Your task to perform on an android device: Open display settings Image 0: 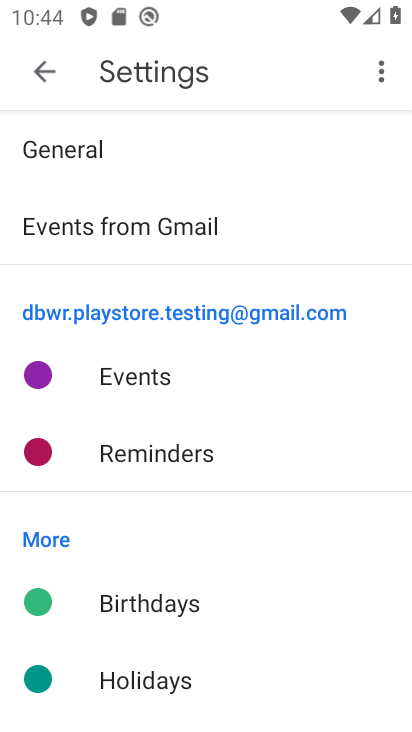
Step 0: drag from (295, 626) to (310, 327)
Your task to perform on an android device: Open display settings Image 1: 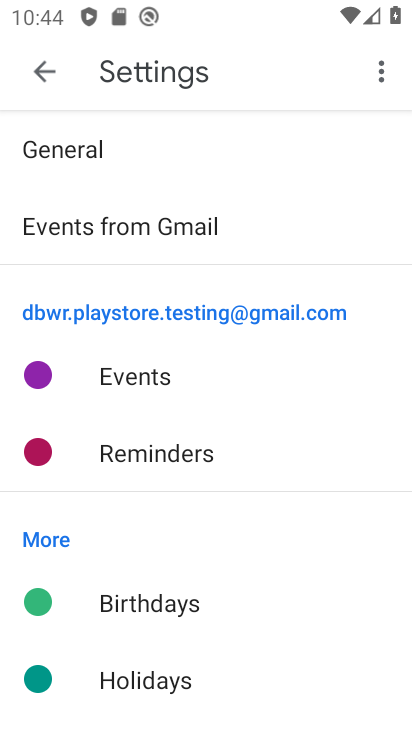
Step 1: press home button
Your task to perform on an android device: Open display settings Image 2: 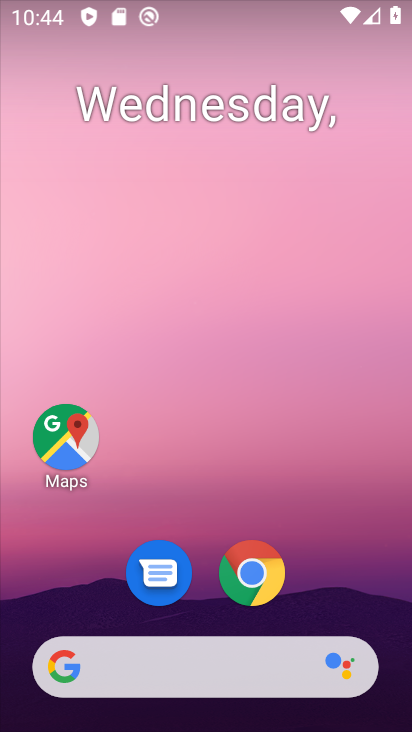
Step 2: click (320, 274)
Your task to perform on an android device: Open display settings Image 3: 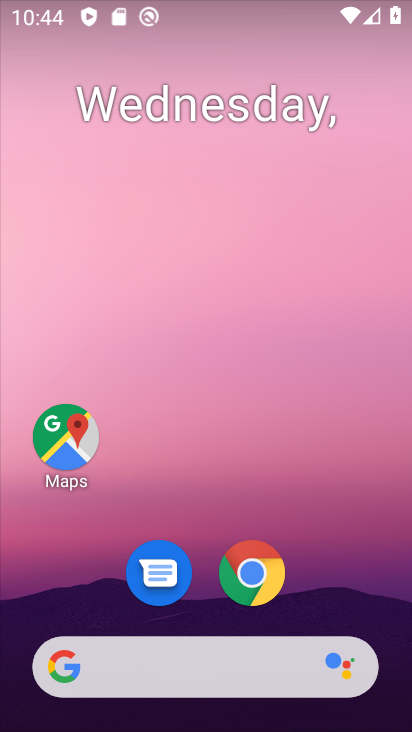
Step 3: drag from (360, 299) to (362, 204)
Your task to perform on an android device: Open display settings Image 4: 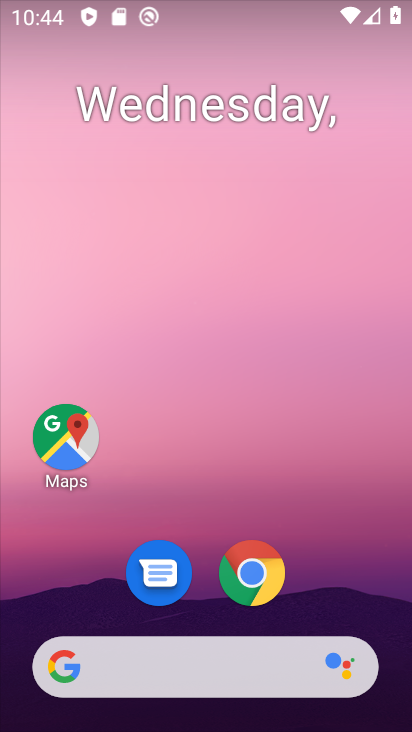
Step 4: click (349, 283)
Your task to perform on an android device: Open display settings Image 5: 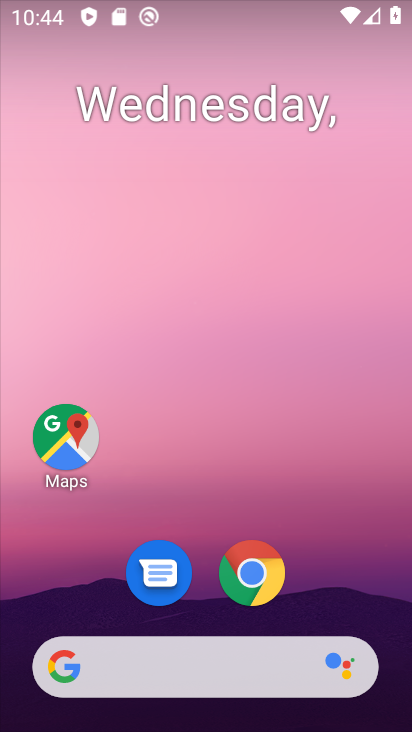
Step 5: drag from (347, 431) to (338, 269)
Your task to perform on an android device: Open display settings Image 6: 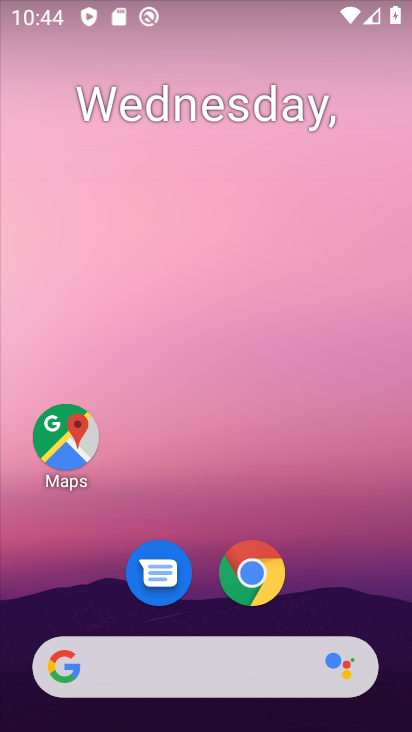
Step 6: click (359, 228)
Your task to perform on an android device: Open display settings Image 7: 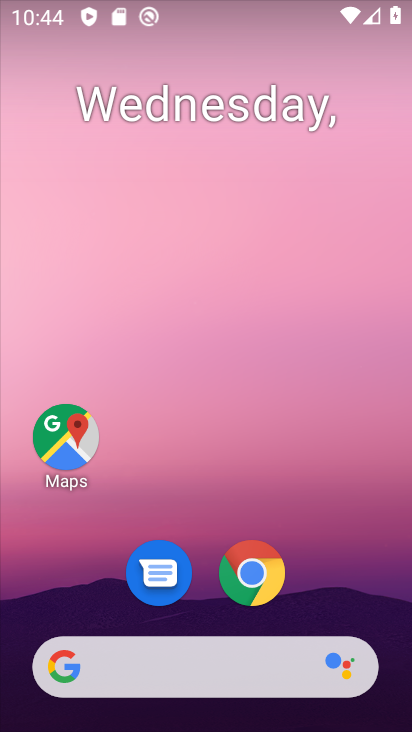
Step 7: drag from (349, 393) to (334, 264)
Your task to perform on an android device: Open display settings Image 8: 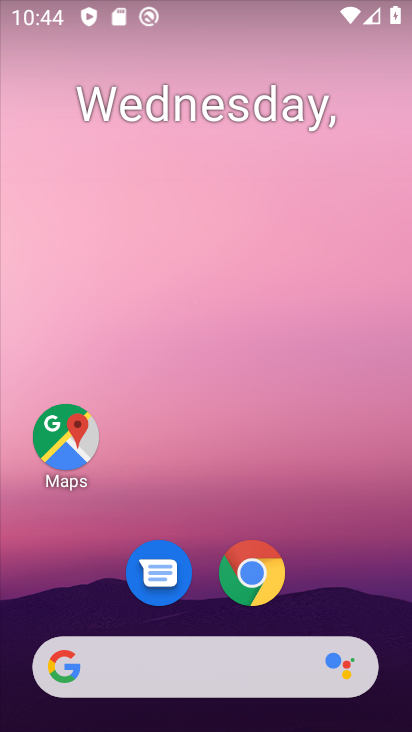
Step 8: drag from (394, 620) to (342, 244)
Your task to perform on an android device: Open display settings Image 9: 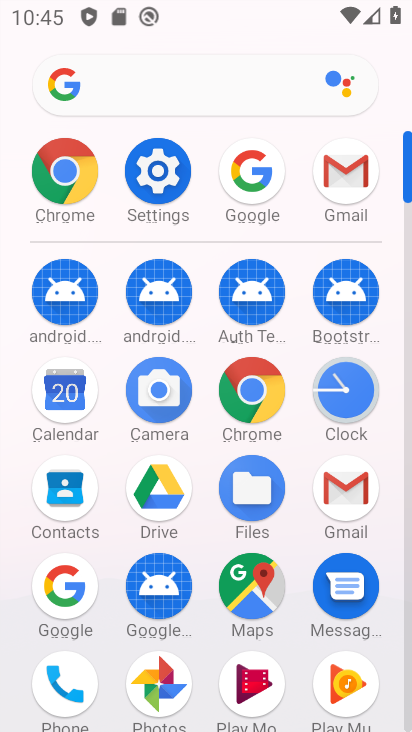
Step 9: click (161, 189)
Your task to perform on an android device: Open display settings Image 10: 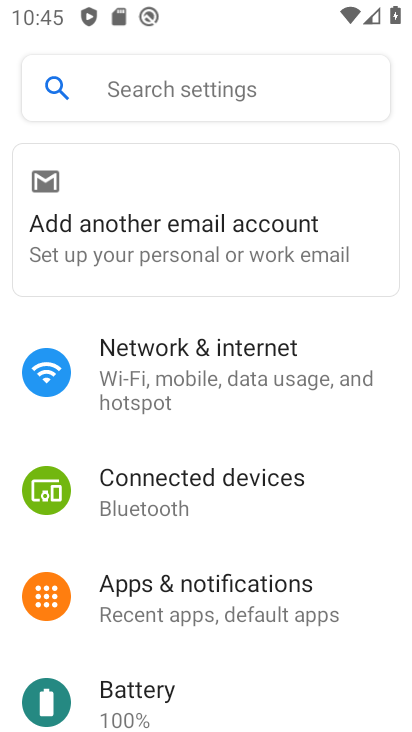
Step 10: drag from (355, 689) to (350, 344)
Your task to perform on an android device: Open display settings Image 11: 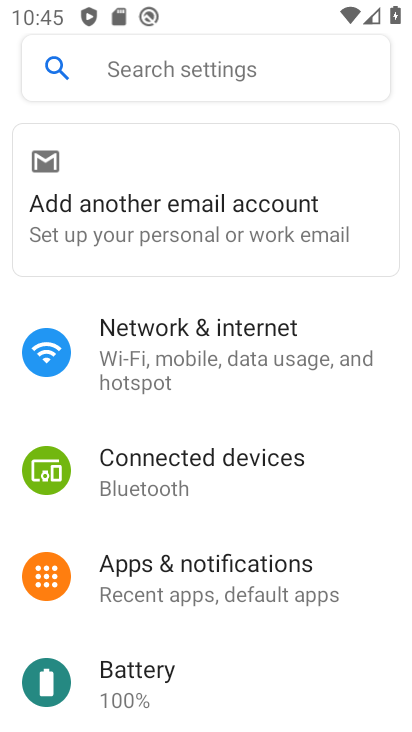
Step 11: drag from (336, 660) to (331, 399)
Your task to perform on an android device: Open display settings Image 12: 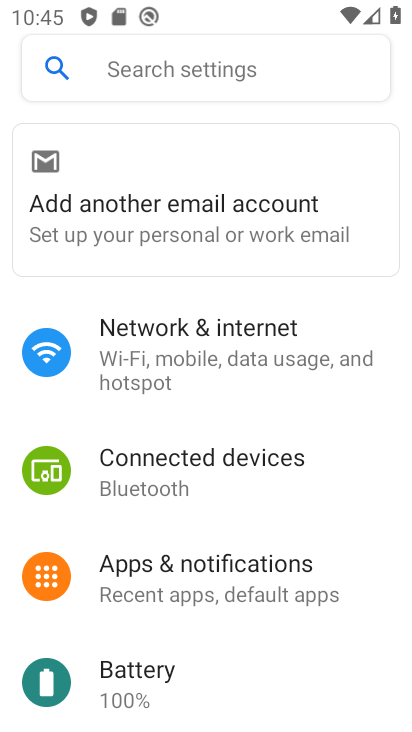
Step 12: drag from (308, 537) to (313, 338)
Your task to perform on an android device: Open display settings Image 13: 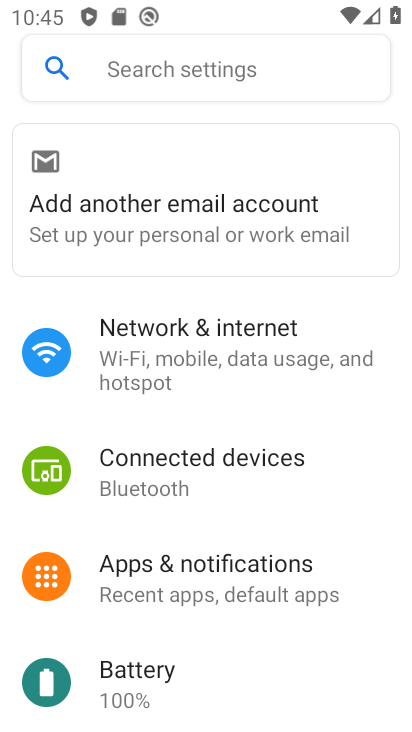
Step 13: drag from (339, 681) to (349, 343)
Your task to perform on an android device: Open display settings Image 14: 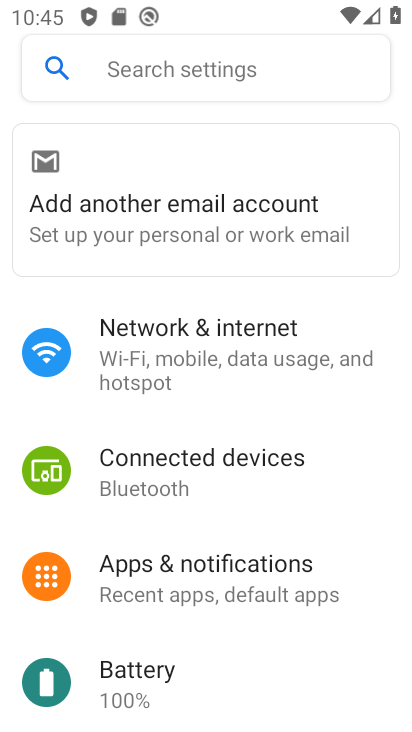
Step 14: drag from (332, 679) to (329, 385)
Your task to perform on an android device: Open display settings Image 15: 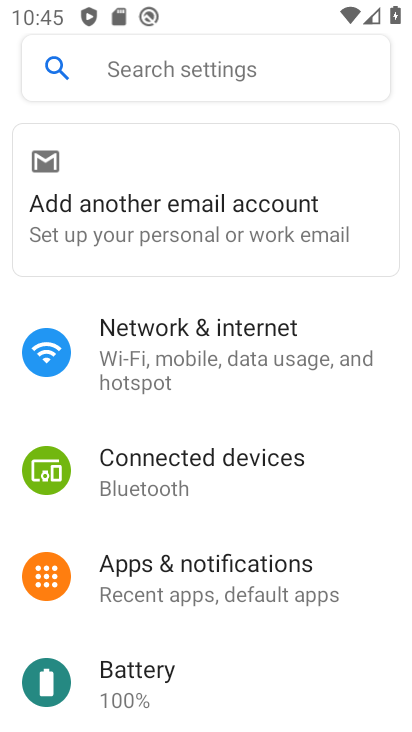
Step 15: drag from (367, 488) to (358, 334)
Your task to perform on an android device: Open display settings Image 16: 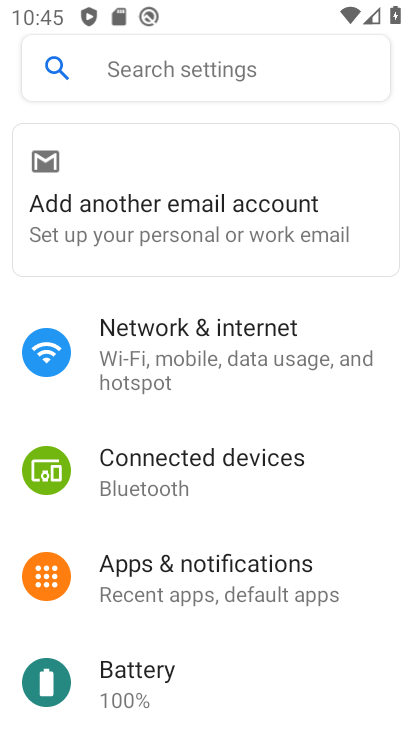
Step 16: drag from (336, 708) to (344, 309)
Your task to perform on an android device: Open display settings Image 17: 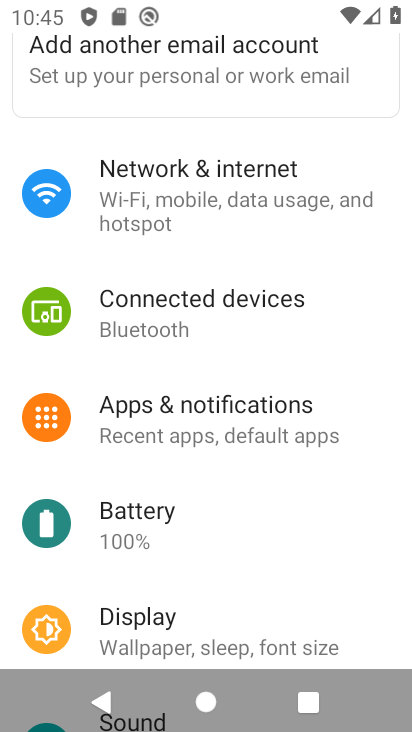
Step 17: drag from (351, 291) to (350, 220)
Your task to perform on an android device: Open display settings Image 18: 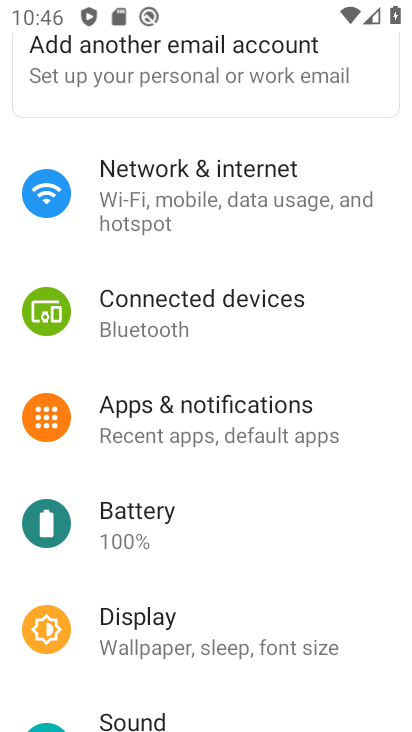
Step 18: click (135, 637)
Your task to perform on an android device: Open display settings Image 19: 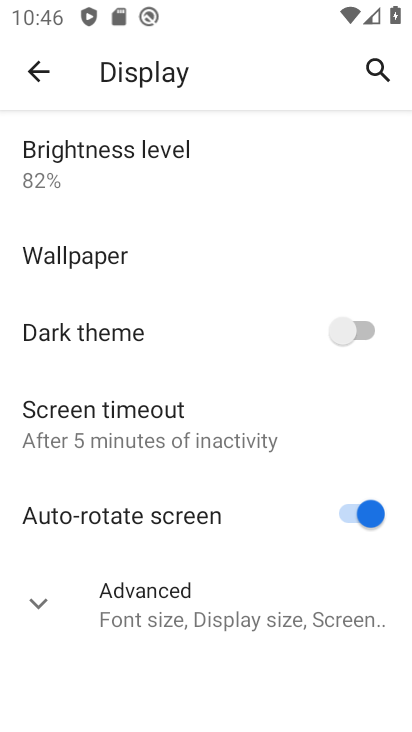
Step 19: task complete